Your task to perform on an android device: open chrome privacy settings Image 0: 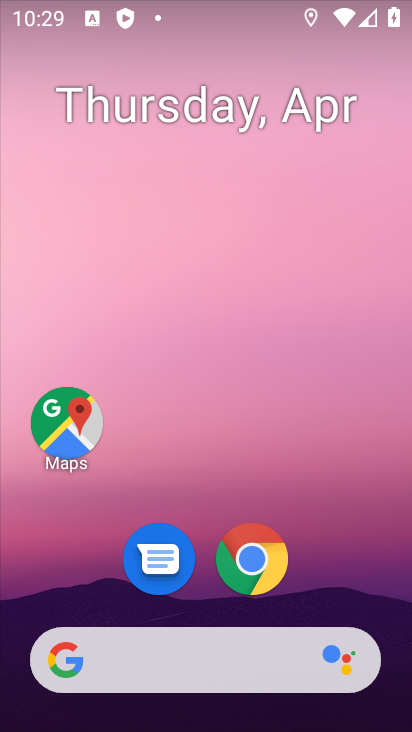
Step 0: click (250, 568)
Your task to perform on an android device: open chrome privacy settings Image 1: 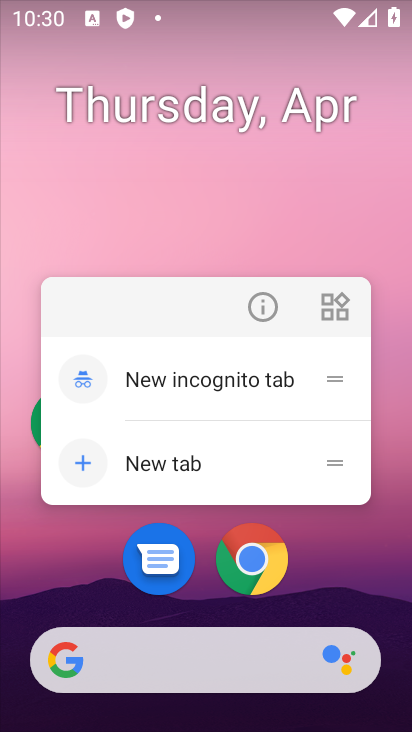
Step 1: click (249, 564)
Your task to perform on an android device: open chrome privacy settings Image 2: 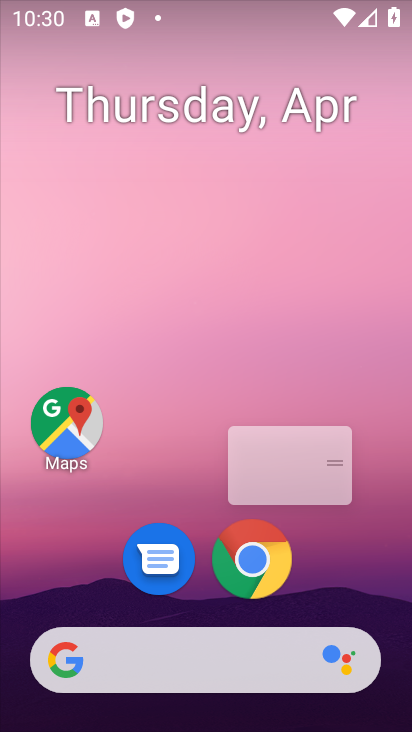
Step 2: click (249, 563)
Your task to perform on an android device: open chrome privacy settings Image 3: 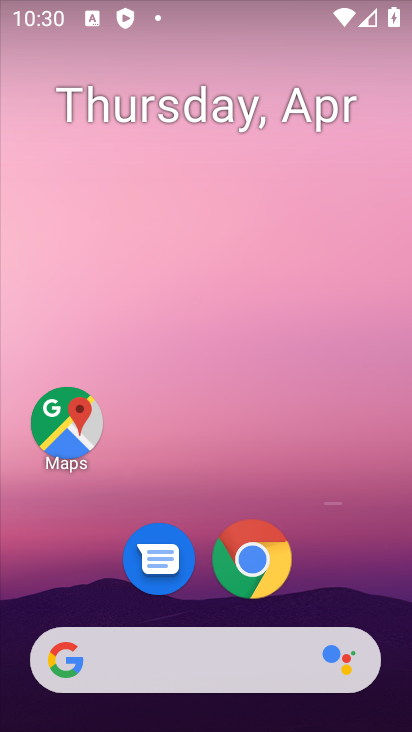
Step 3: click (249, 563)
Your task to perform on an android device: open chrome privacy settings Image 4: 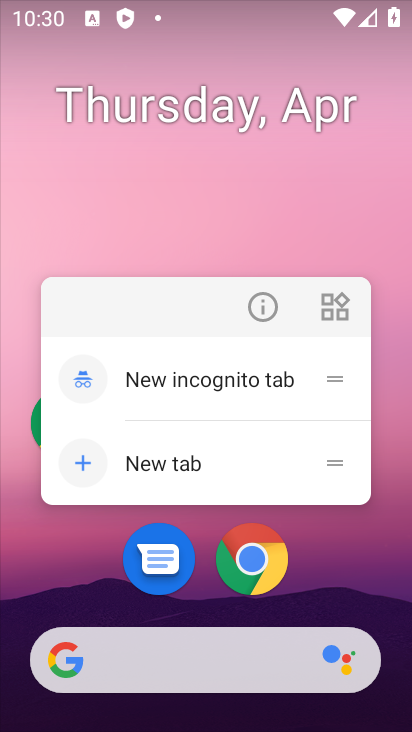
Step 4: click (249, 563)
Your task to perform on an android device: open chrome privacy settings Image 5: 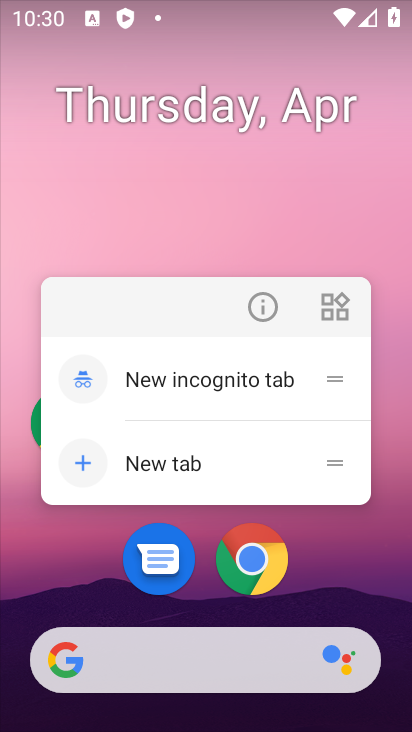
Step 5: click (249, 563)
Your task to perform on an android device: open chrome privacy settings Image 6: 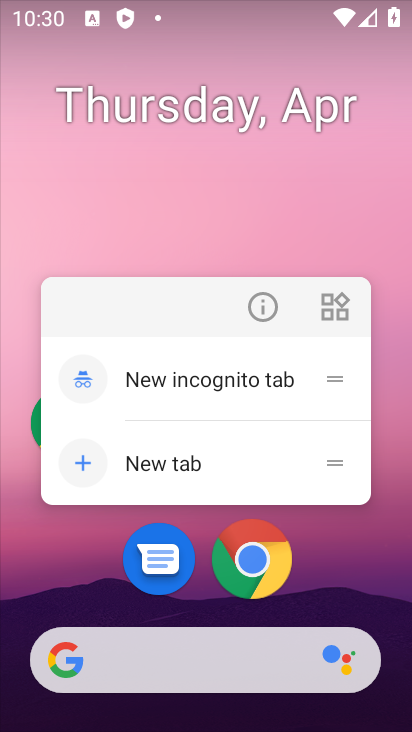
Step 6: click (249, 563)
Your task to perform on an android device: open chrome privacy settings Image 7: 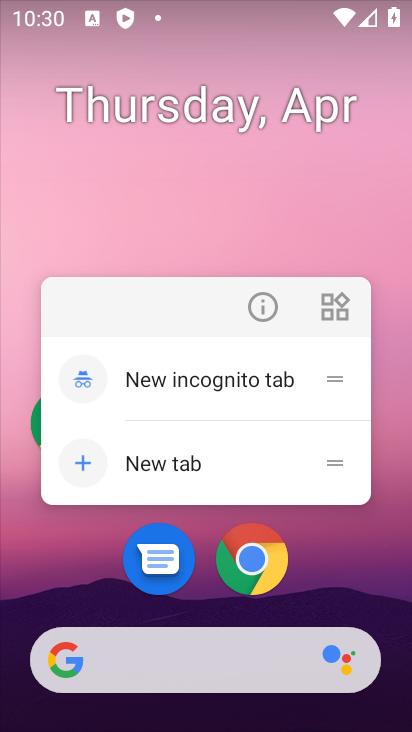
Step 7: click (249, 563)
Your task to perform on an android device: open chrome privacy settings Image 8: 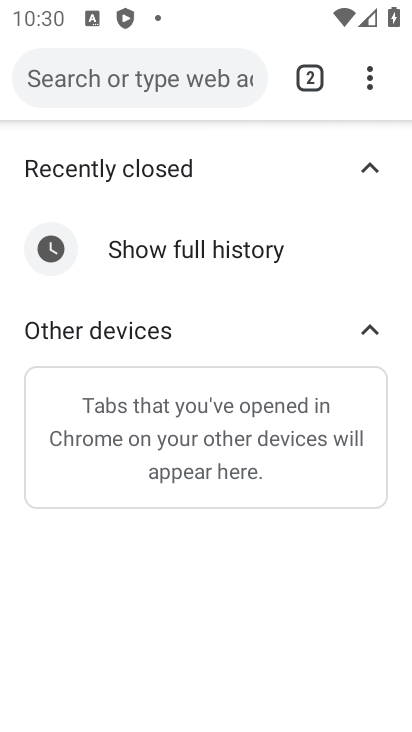
Step 8: click (372, 77)
Your task to perform on an android device: open chrome privacy settings Image 9: 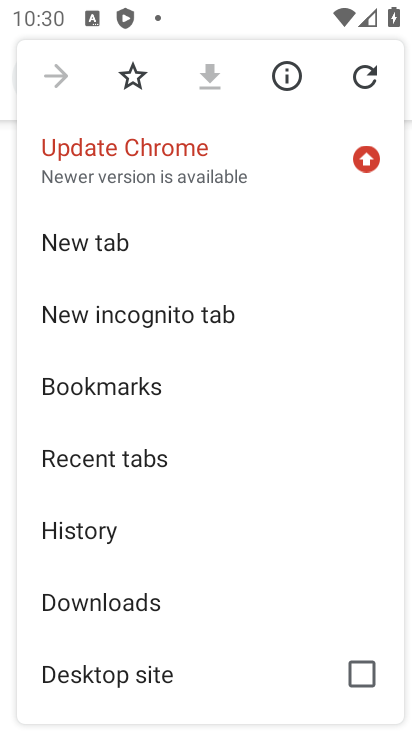
Step 9: drag from (287, 697) to (176, 200)
Your task to perform on an android device: open chrome privacy settings Image 10: 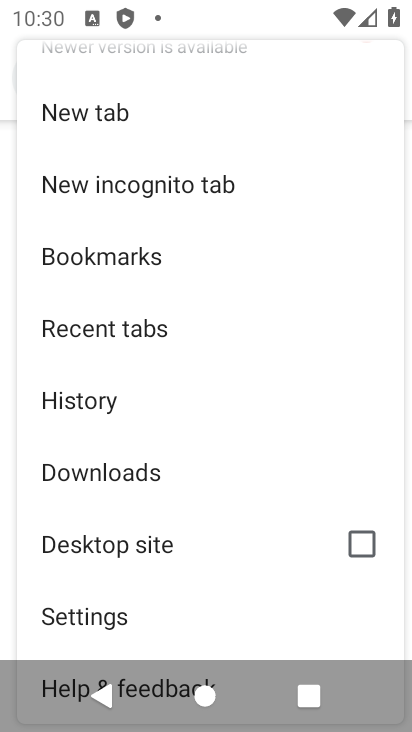
Step 10: click (127, 614)
Your task to perform on an android device: open chrome privacy settings Image 11: 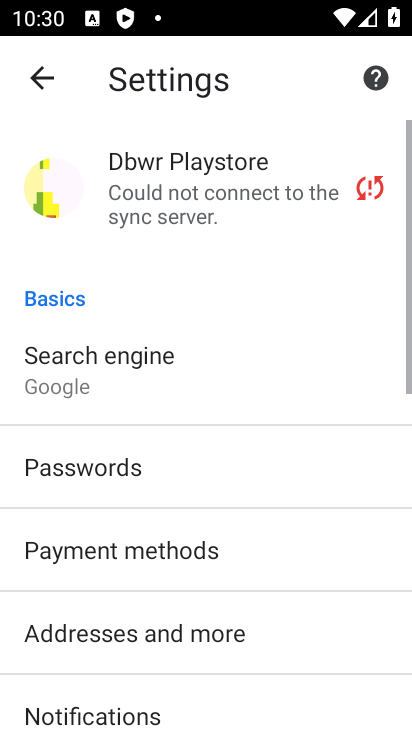
Step 11: drag from (318, 640) to (334, 50)
Your task to perform on an android device: open chrome privacy settings Image 12: 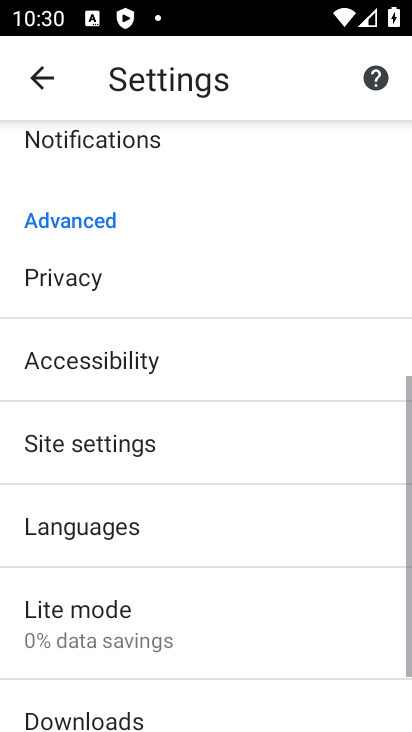
Step 12: click (109, 289)
Your task to perform on an android device: open chrome privacy settings Image 13: 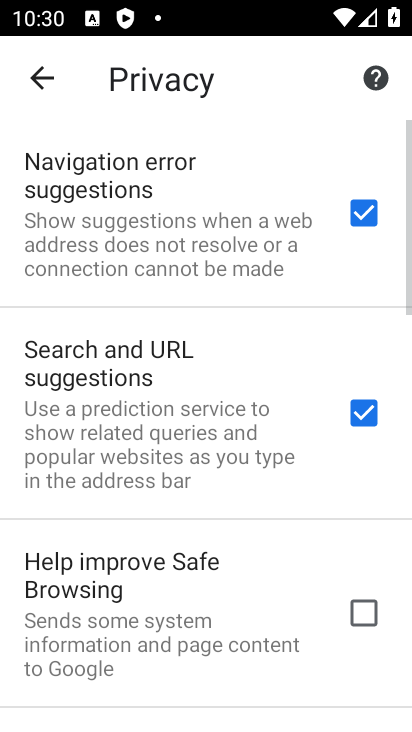
Step 13: task complete